Your task to perform on an android device: see tabs open on other devices in the chrome app Image 0: 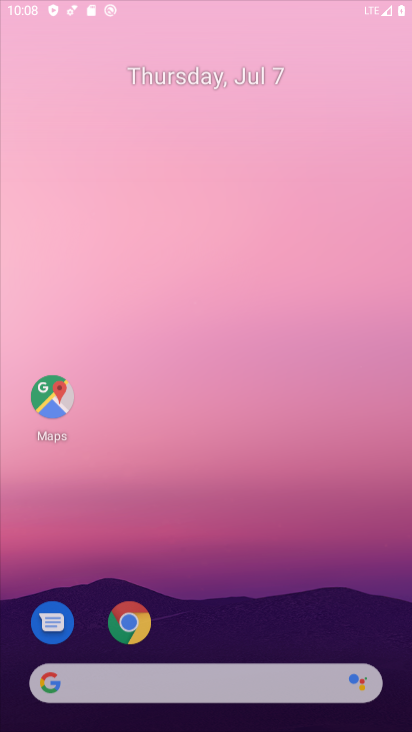
Step 0: press home button
Your task to perform on an android device: see tabs open on other devices in the chrome app Image 1: 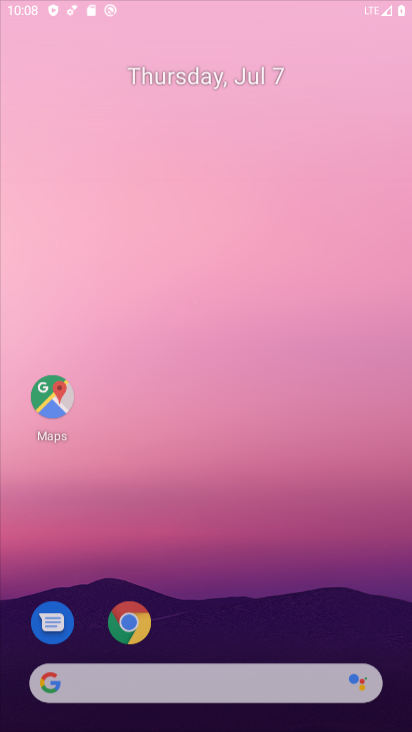
Step 1: click (248, 11)
Your task to perform on an android device: see tabs open on other devices in the chrome app Image 2: 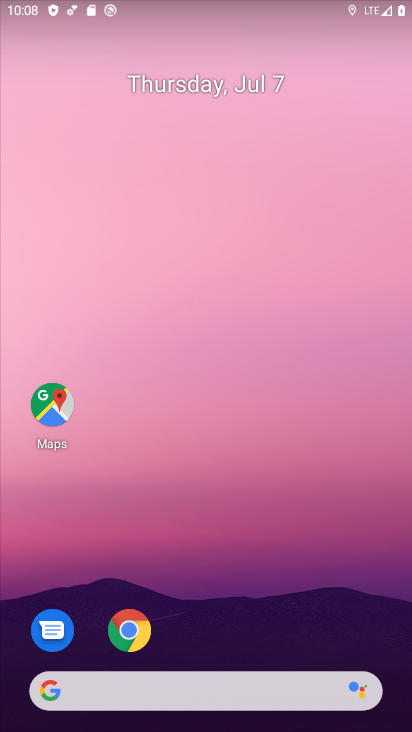
Step 2: press home button
Your task to perform on an android device: see tabs open on other devices in the chrome app Image 3: 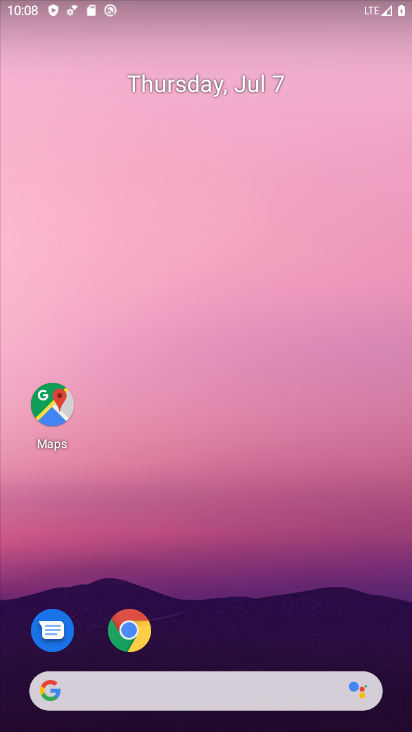
Step 3: drag from (217, 656) to (247, 35)
Your task to perform on an android device: see tabs open on other devices in the chrome app Image 4: 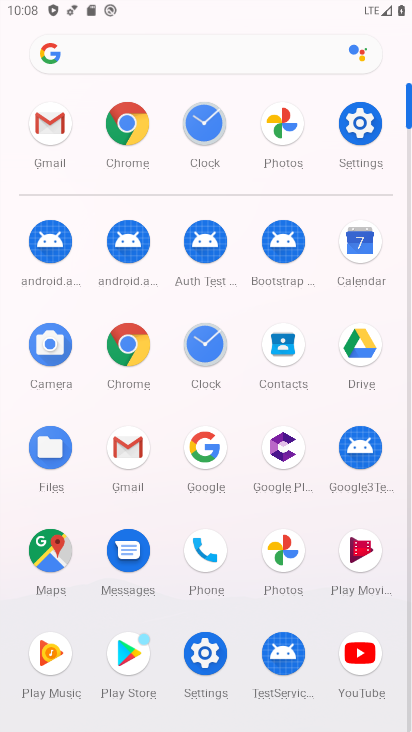
Step 4: click (121, 116)
Your task to perform on an android device: see tabs open on other devices in the chrome app Image 5: 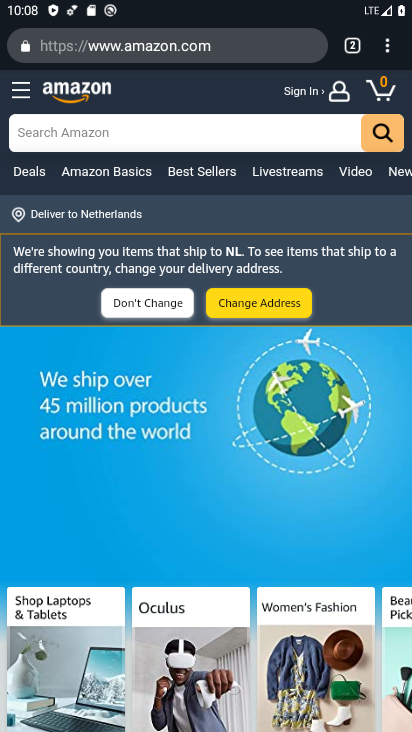
Step 5: click (349, 41)
Your task to perform on an android device: see tabs open on other devices in the chrome app Image 6: 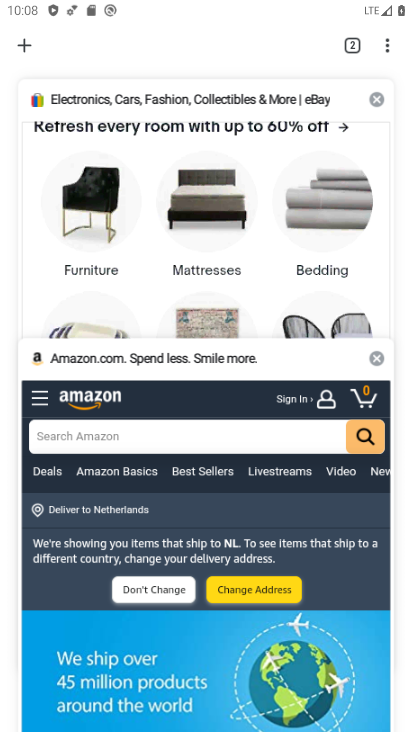
Step 6: click (375, 96)
Your task to perform on an android device: see tabs open on other devices in the chrome app Image 7: 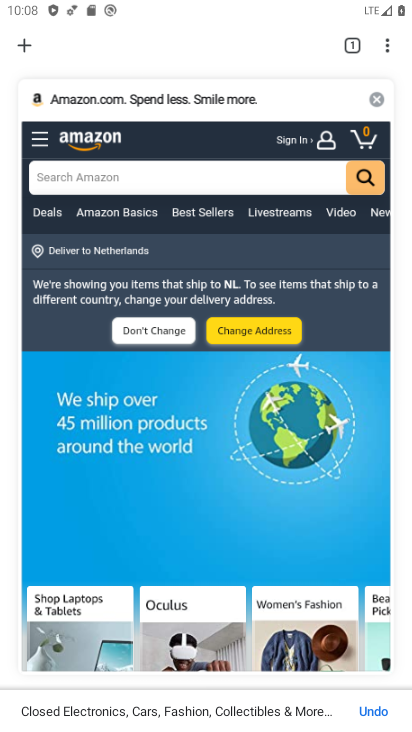
Step 7: click (378, 96)
Your task to perform on an android device: see tabs open on other devices in the chrome app Image 8: 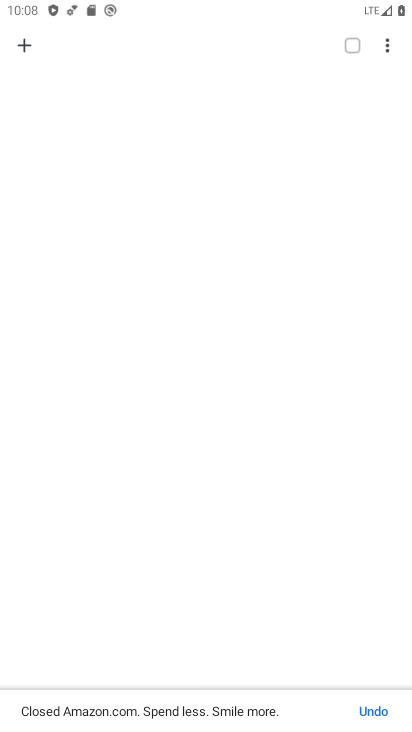
Step 8: click (27, 45)
Your task to perform on an android device: see tabs open on other devices in the chrome app Image 9: 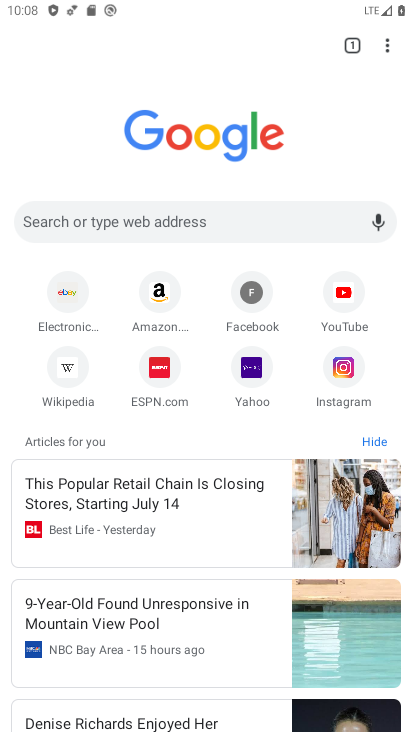
Step 9: click (382, 49)
Your task to perform on an android device: see tabs open on other devices in the chrome app Image 10: 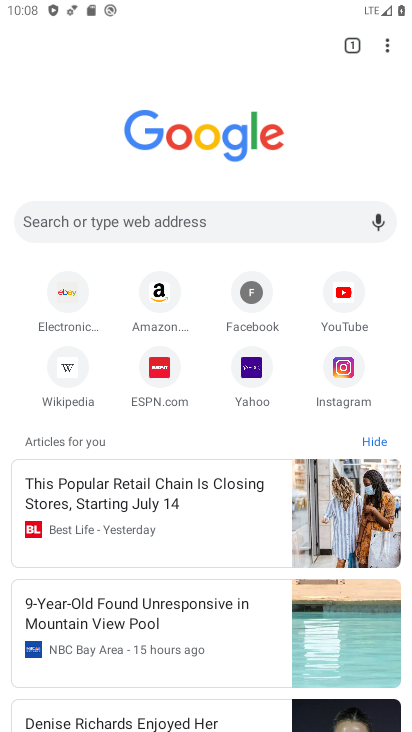
Step 10: click (390, 41)
Your task to perform on an android device: see tabs open on other devices in the chrome app Image 11: 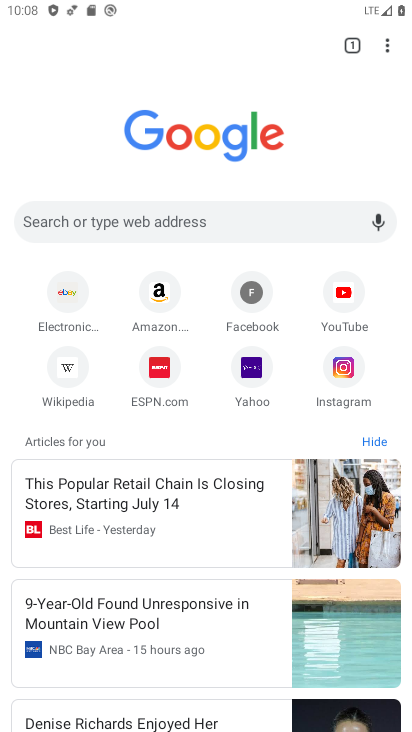
Step 11: click (390, 41)
Your task to perform on an android device: see tabs open on other devices in the chrome app Image 12: 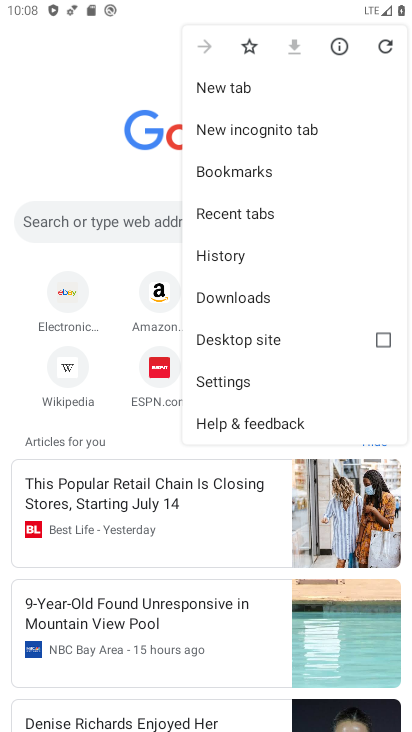
Step 12: click (265, 214)
Your task to perform on an android device: see tabs open on other devices in the chrome app Image 13: 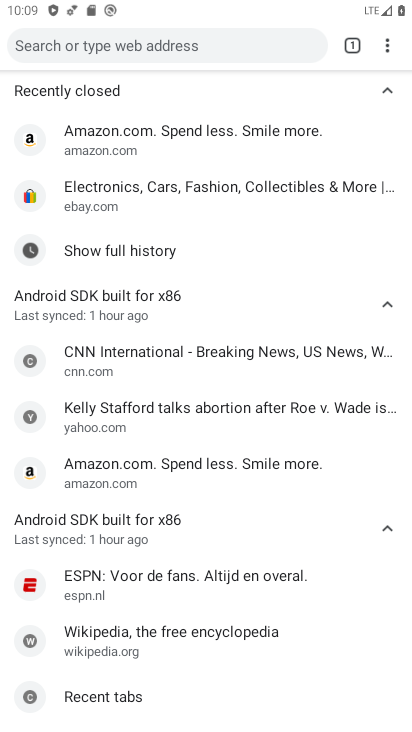
Step 13: task complete